Your task to perform on an android device: What's on my calendar today? Image 0: 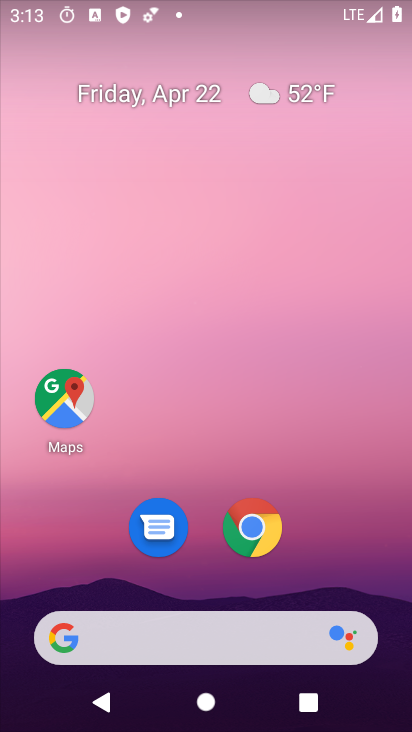
Step 0: drag from (377, 430) to (405, 112)
Your task to perform on an android device: What's on my calendar today? Image 1: 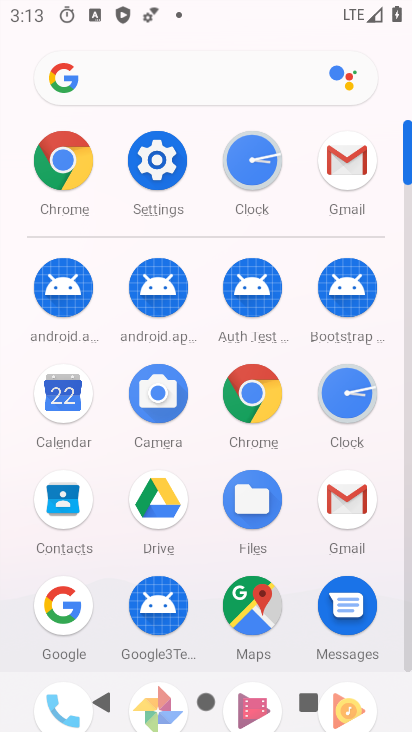
Step 1: click (80, 391)
Your task to perform on an android device: What's on my calendar today? Image 2: 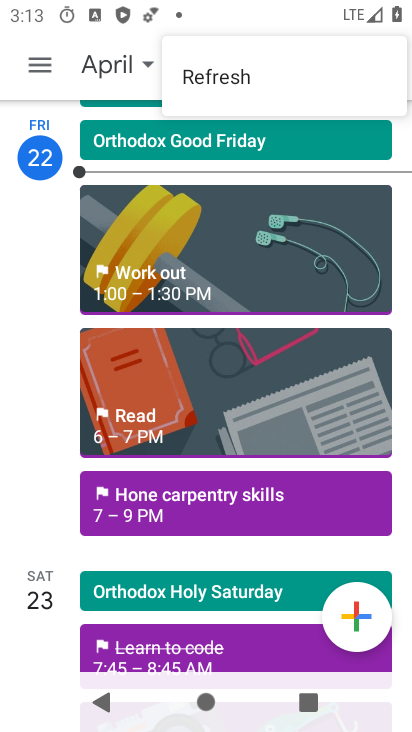
Step 2: click (38, 230)
Your task to perform on an android device: What's on my calendar today? Image 3: 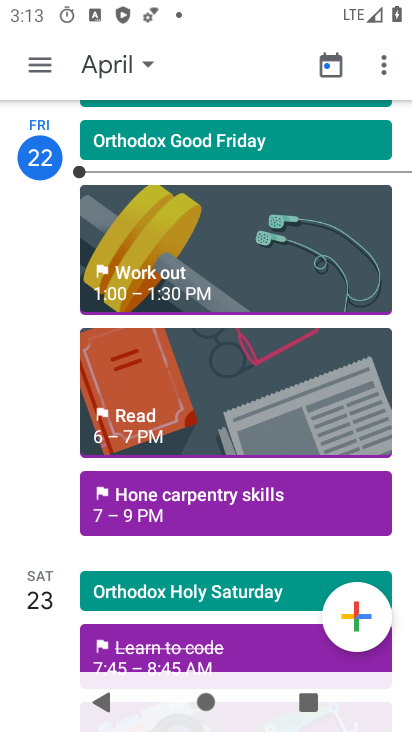
Step 3: click (120, 65)
Your task to perform on an android device: What's on my calendar today? Image 4: 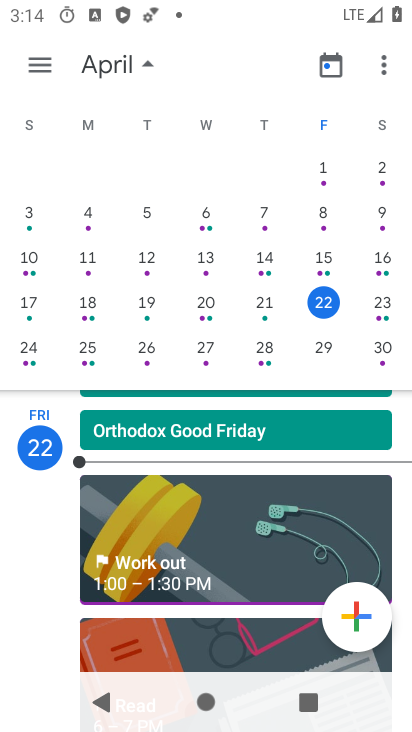
Step 4: task complete